Your task to perform on an android device: turn smart compose on in the gmail app Image 0: 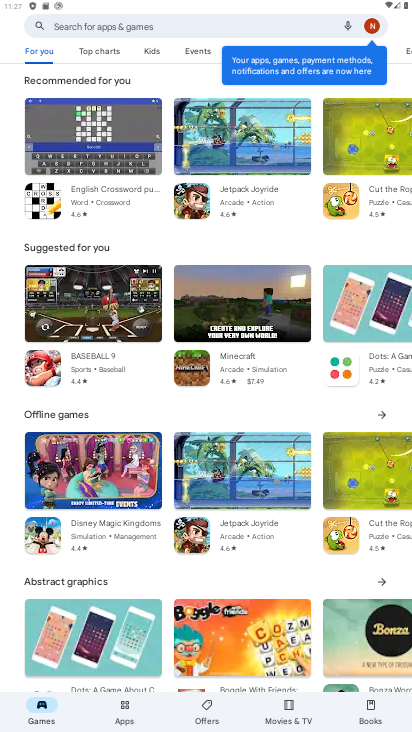
Step 0: drag from (224, 547) to (261, 230)
Your task to perform on an android device: turn smart compose on in the gmail app Image 1: 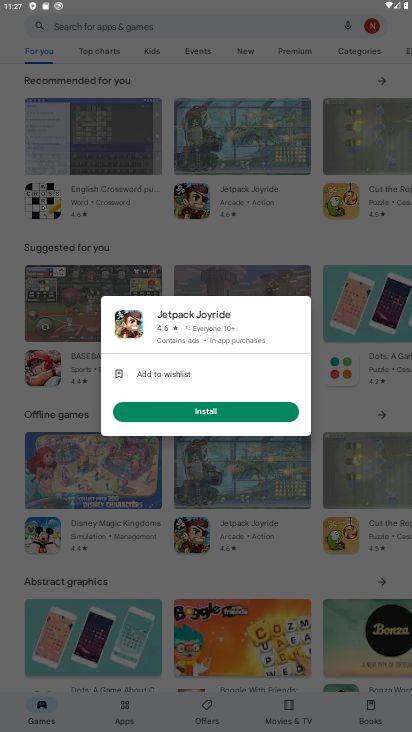
Step 1: press home button
Your task to perform on an android device: turn smart compose on in the gmail app Image 2: 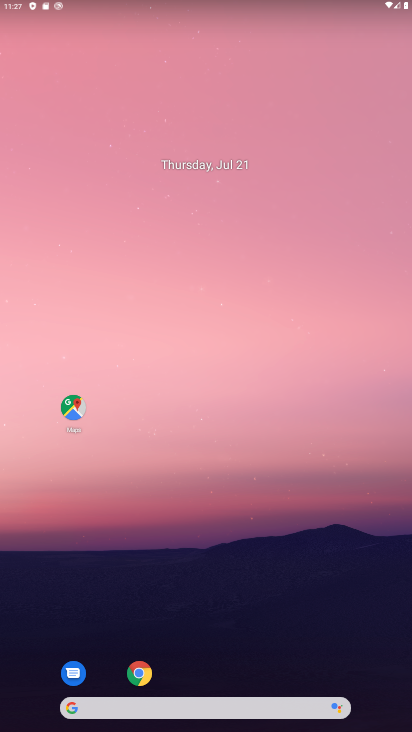
Step 2: drag from (183, 454) to (236, 67)
Your task to perform on an android device: turn smart compose on in the gmail app Image 3: 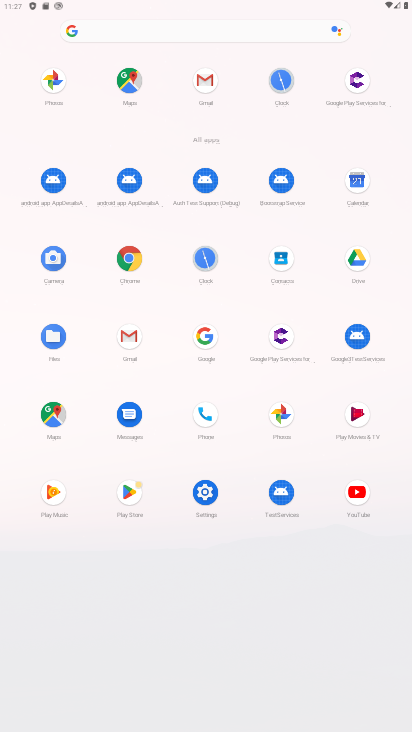
Step 3: click (127, 336)
Your task to perform on an android device: turn smart compose on in the gmail app Image 4: 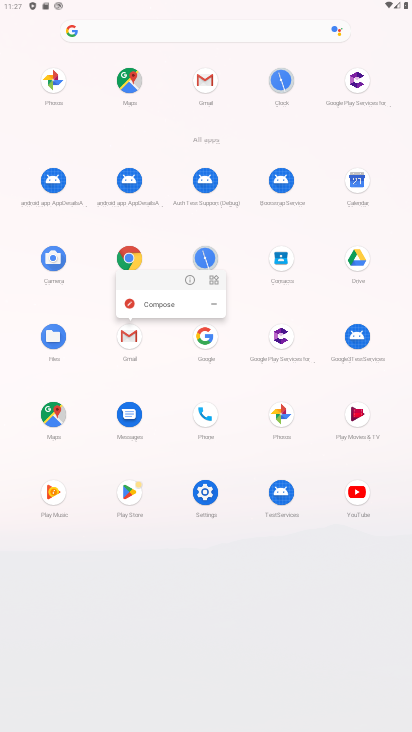
Step 4: click (191, 278)
Your task to perform on an android device: turn smart compose on in the gmail app Image 5: 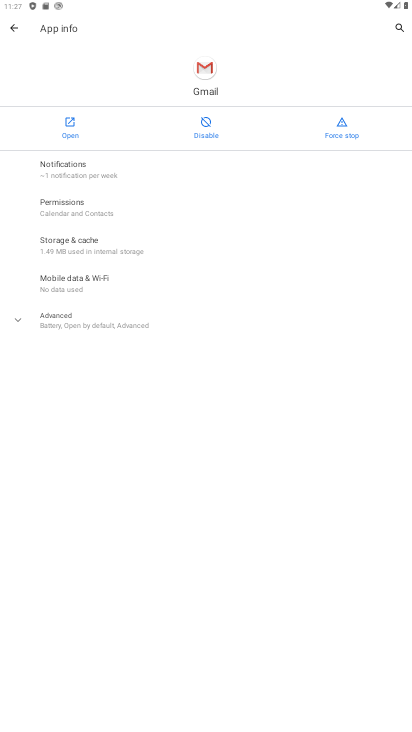
Step 5: click (64, 121)
Your task to perform on an android device: turn smart compose on in the gmail app Image 6: 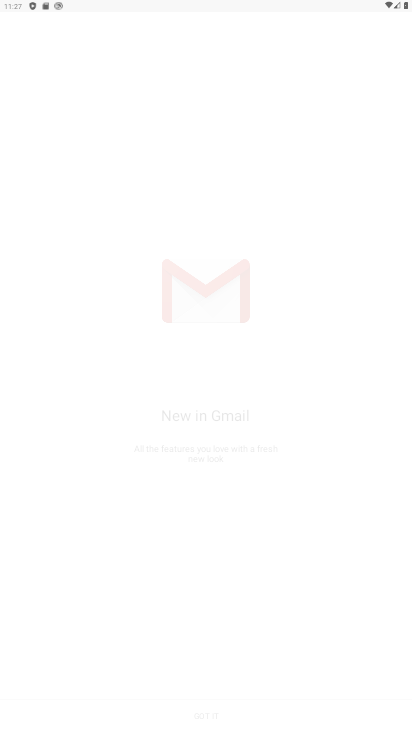
Step 6: drag from (204, 477) to (191, 175)
Your task to perform on an android device: turn smart compose on in the gmail app Image 7: 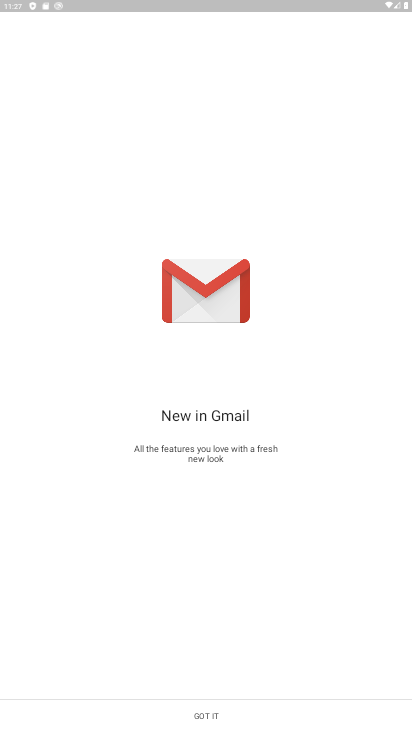
Step 7: drag from (150, 102) to (274, 701)
Your task to perform on an android device: turn smart compose on in the gmail app Image 8: 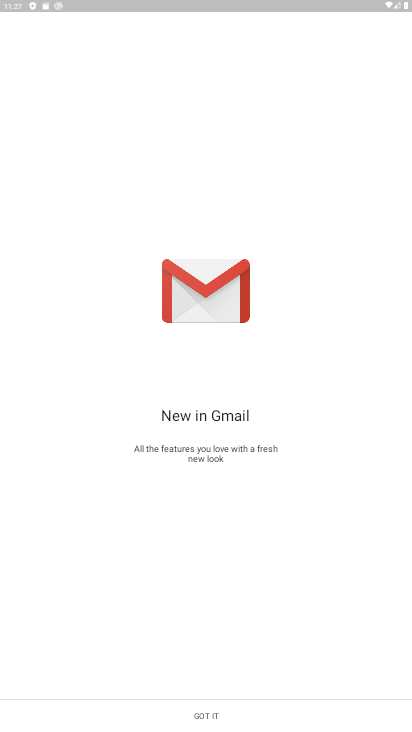
Step 8: click (190, 700)
Your task to perform on an android device: turn smart compose on in the gmail app Image 9: 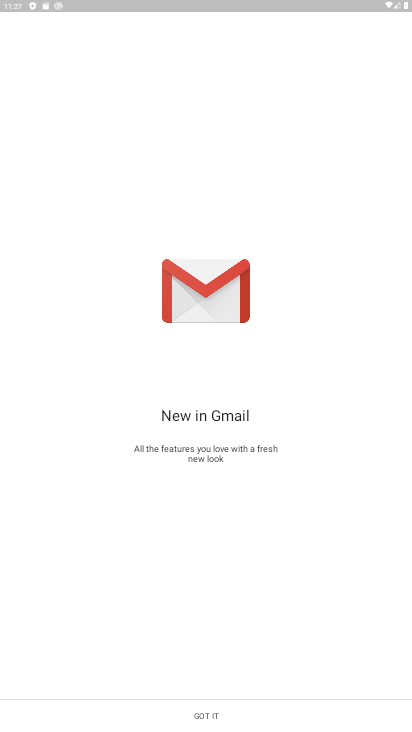
Step 9: click (194, 705)
Your task to perform on an android device: turn smart compose on in the gmail app Image 10: 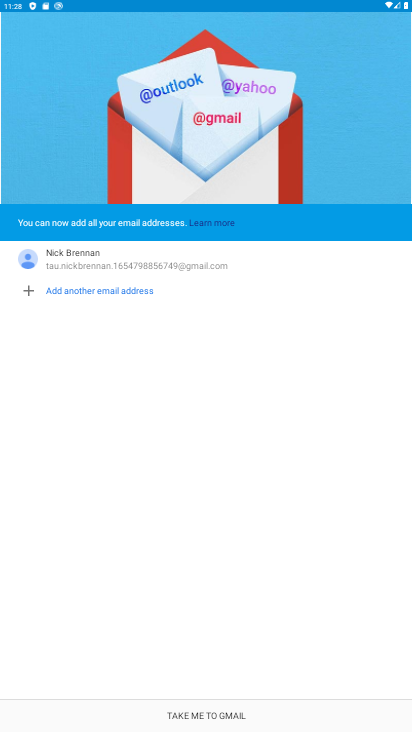
Step 10: click (190, 713)
Your task to perform on an android device: turn smart compose on in the gmail app Image 11: 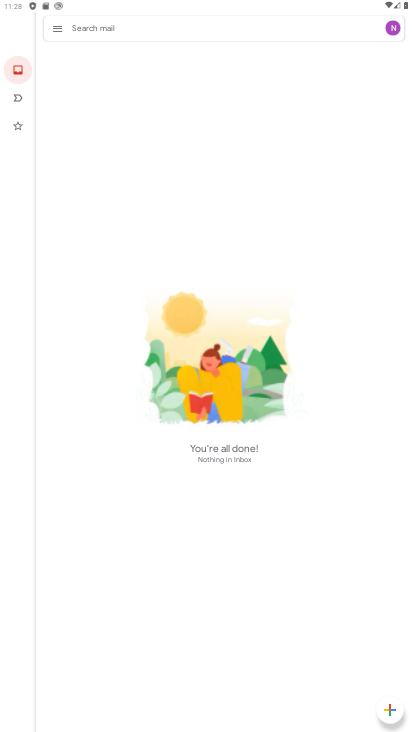
Step 11: drag from (181, 551) to (243, 337)
Your task to perform on an android device: turn smart compose on in the gmail app Image 12: 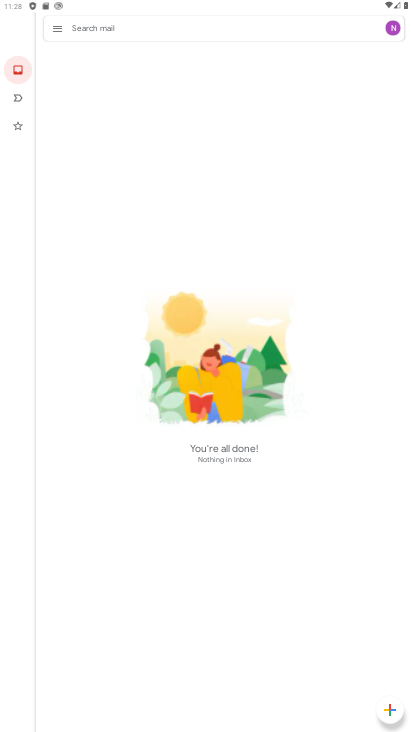
Step 12: click (66, 28)
Your task to perform on an android device: turn smart compose on in the gmail app Image 13: 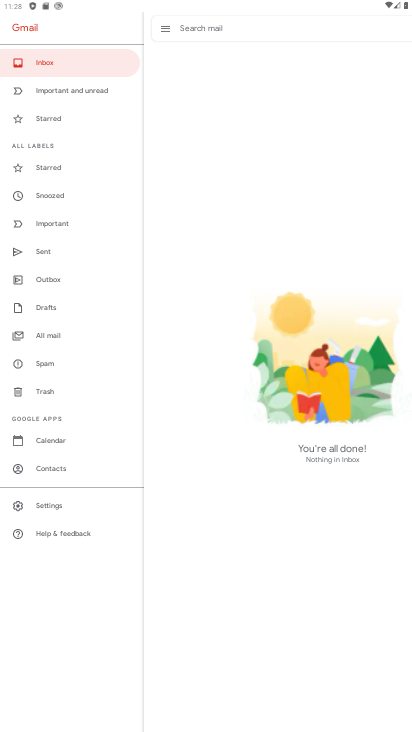
Step 13: click (63, 495)
Your task to perform on an android device: turn smart compose on in the gmail app Image 14: 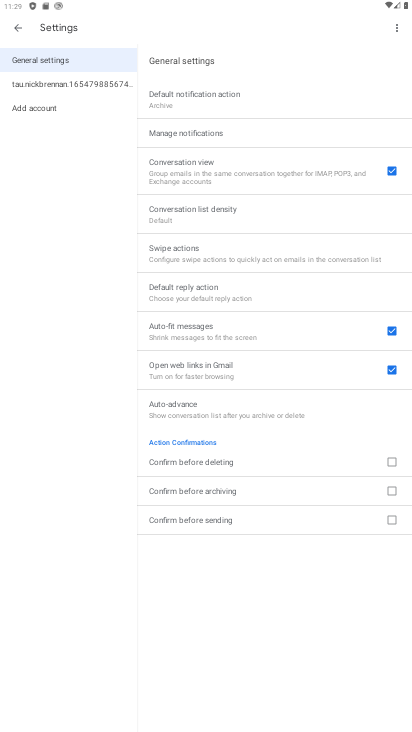
Step 14: click (93, 74)
Your task to perform on an android device: turn smart compose on in the gmail app Image 15: 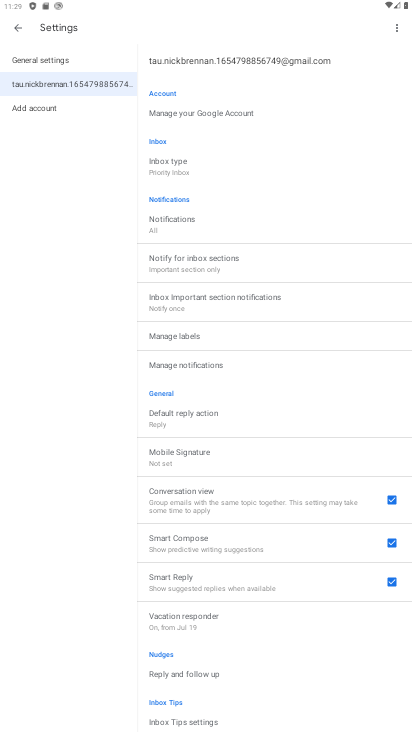
Step 15: task complete